Your task to perform on an android device: Search for seafood restaurants on Google Maps Image 0: 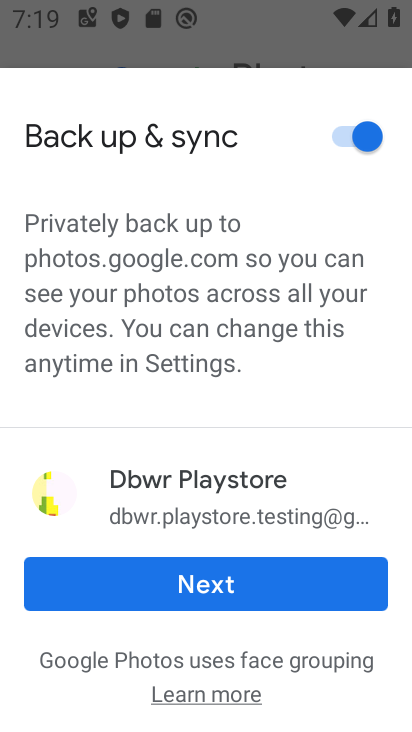
Step 0: press home button
Your task to perform on an android device: Search for seafood restaurants on Google Maps Image 1: 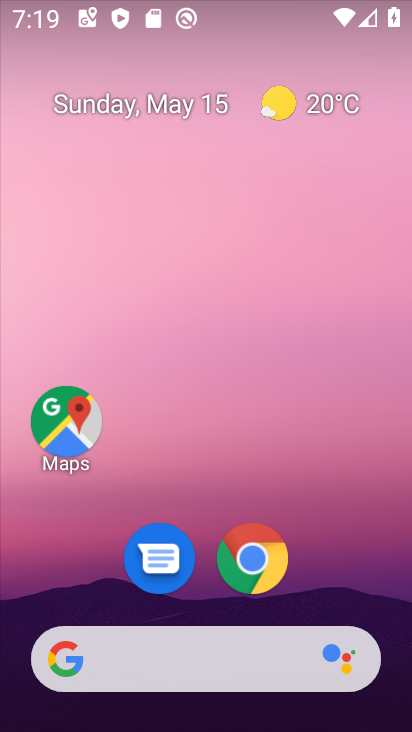
Step 1: click (67, 430)
Your task to perform on an android device: Search for seafood restaurants on Google Maps Image 2: 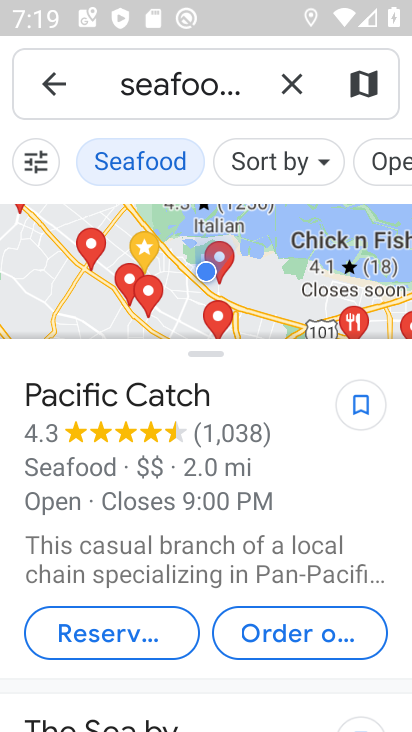
Step 2: task complete